Your task to perform on an android device: Search for Mexican restaurants on Maps Image 0: 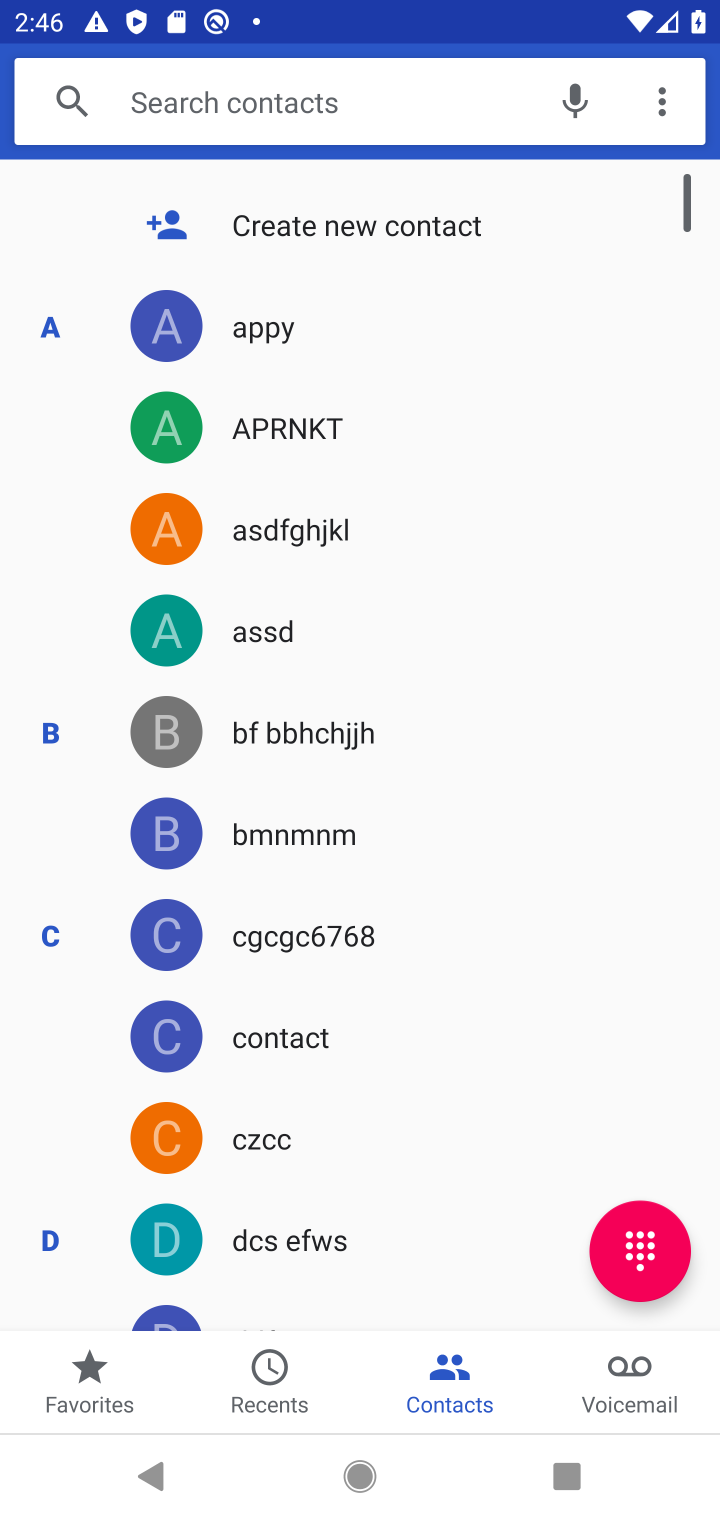
Step 0: press home button
Your task to perform on an android device: Search for Mexican restaurants on Maps Image 1: 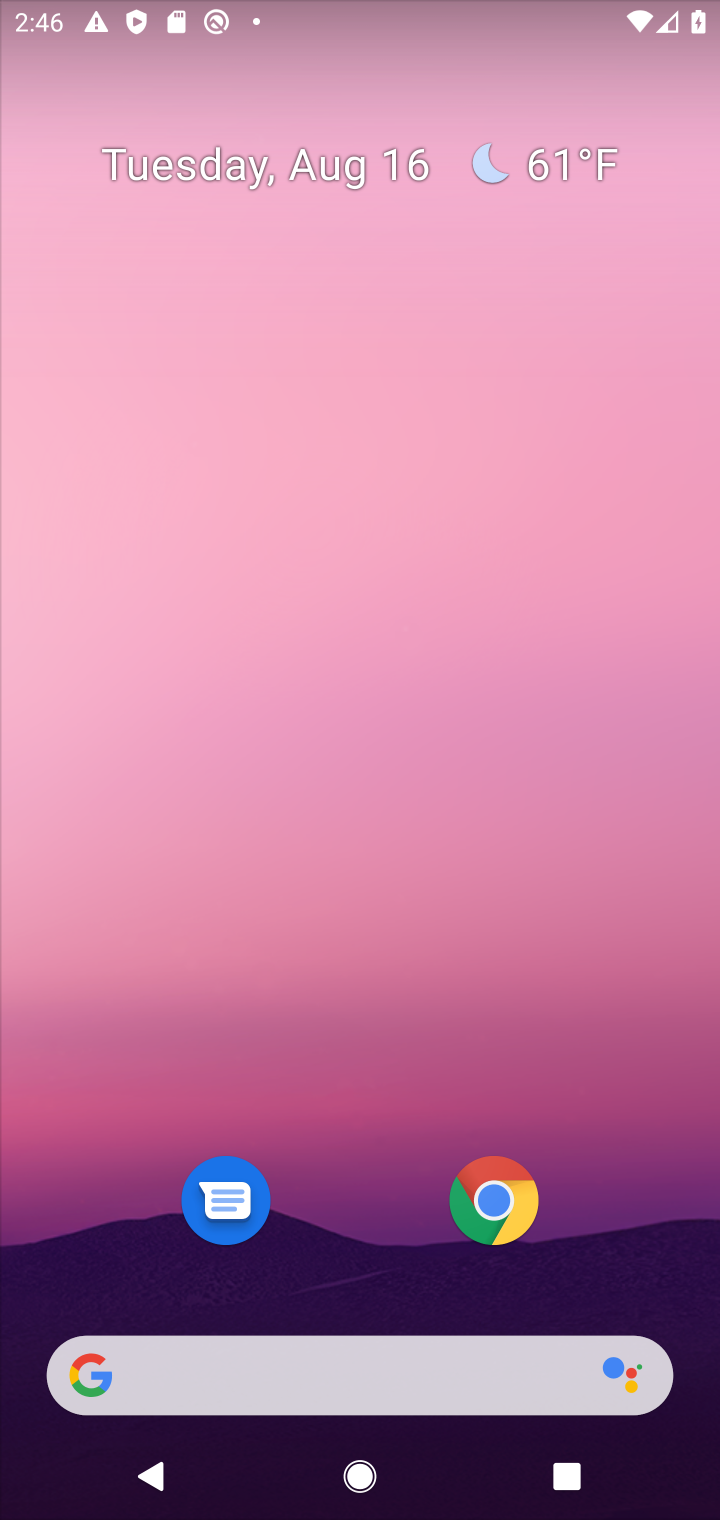
Step 1: task complete